Your task to perform on an android device: change text size in settings app Image 0: 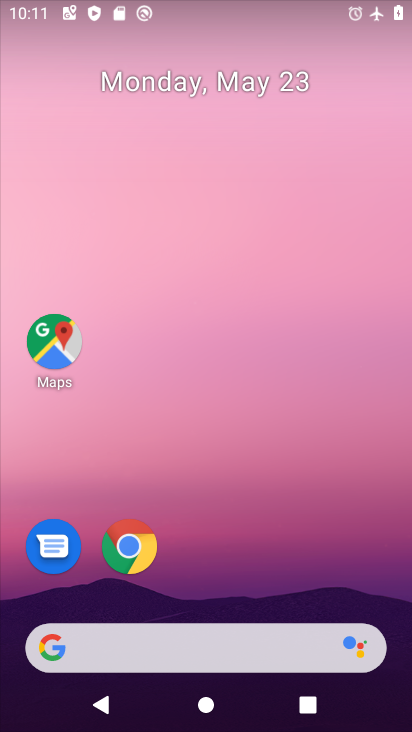
Step 0: drag from (397, 588) to (376, 214)
Your task to perform on an android device: change text size in settings app Image 1: 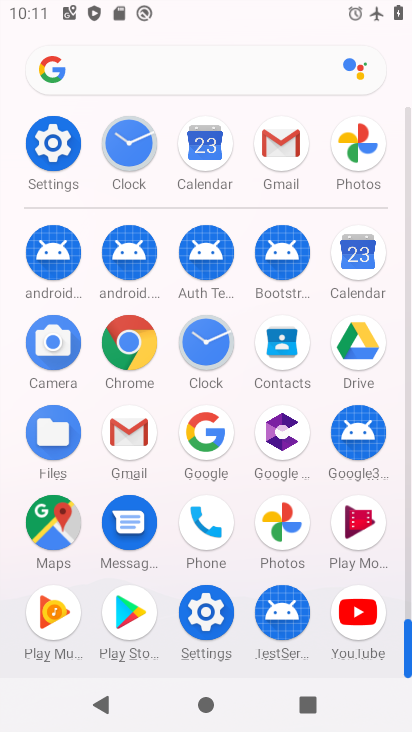
Step 1: click (204, 611)
Your task to perform on an android device: change text size in settings app Image 2: 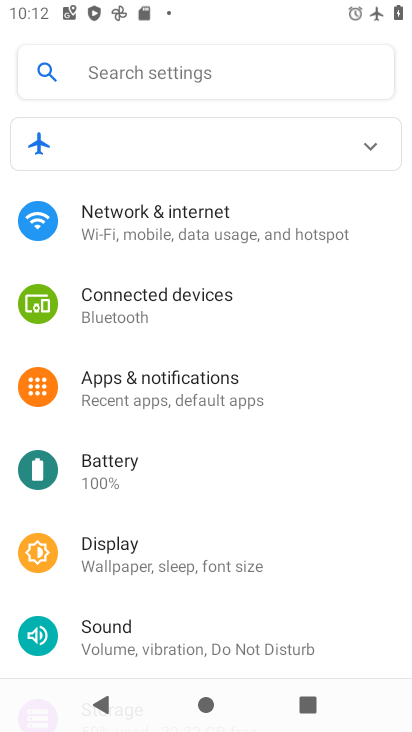
Step 2: drag from (296, 633) to (292, 376)
Your task to perform on an android device: change text size in settings app Image 3: 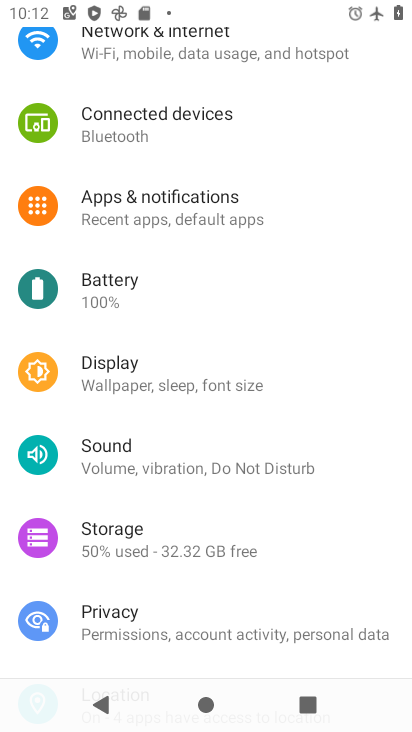
Step 3: click (151, 390)
Your task to perform on an android device: change text size in settings app Image 4: 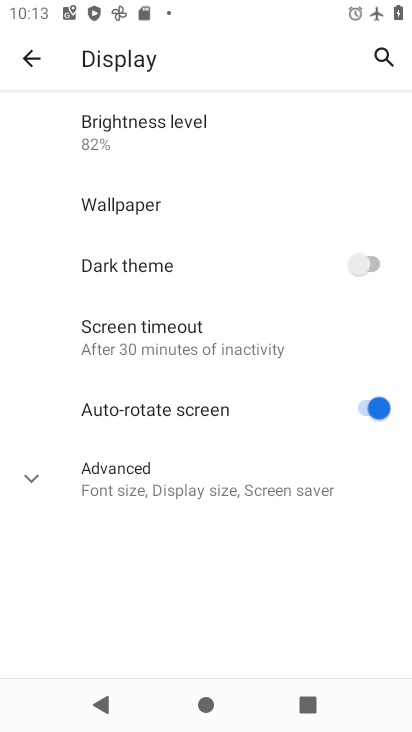
Step 4: click (25, 483)
Your task to perform on an android device: change text size in settings app Image 5: 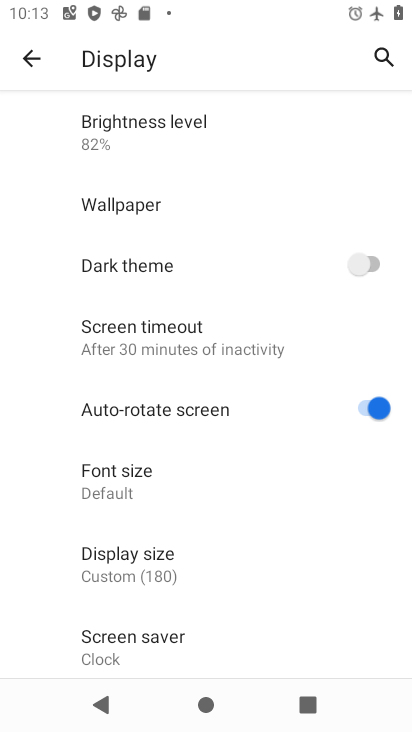
Step 5: drag from (245, 619) to (249, 213)
Your task to perform on an android device: change text size in settings app Image 6: 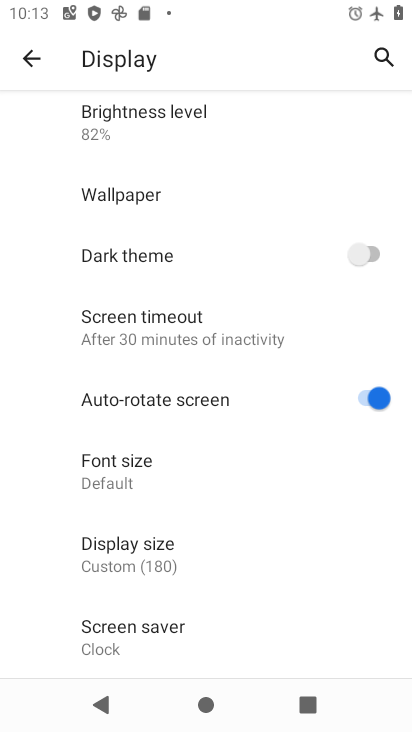
Step 6: drag from (237, 520) to (246, 215)
Your task to perform on an android device: change text size in settings app Image 7: 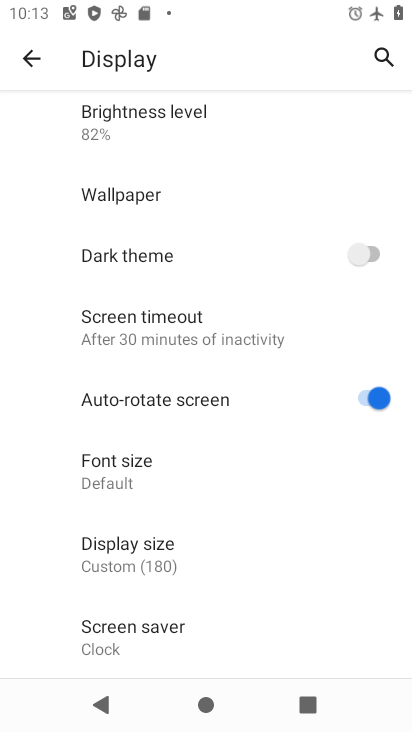
Step 7: click (110, 472)
Your task to perform on an android device: change text size in settings app Image 8: 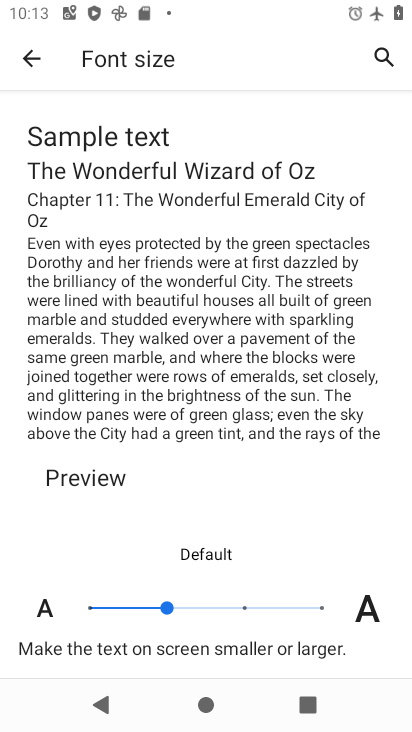
Step 8: click (240, 606)
Your task to perform on an android device: change text size in settings app Image 9: 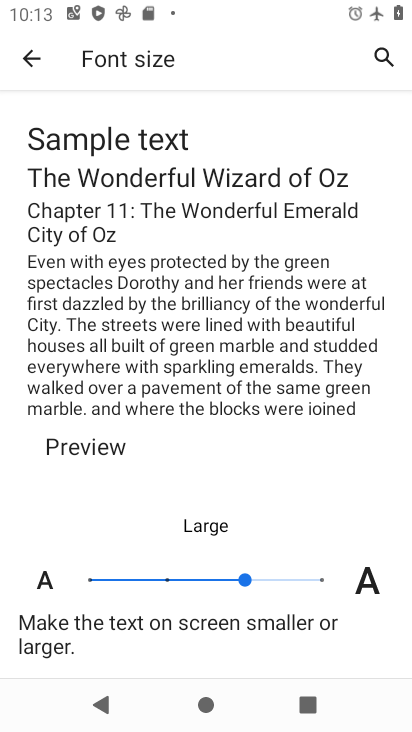
Step 9: task complete